Your task to perform on an android device: search for starred emails in the gmail app Image 0: 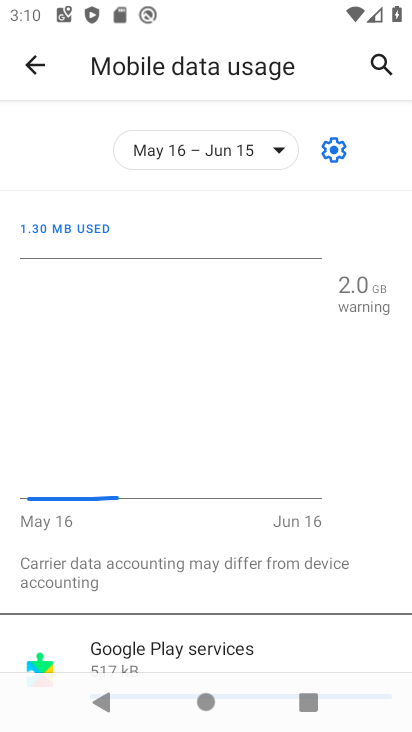
Step 0: press home button
Your task to perform on an android device: search for starred emails in the gmail app Image 1: 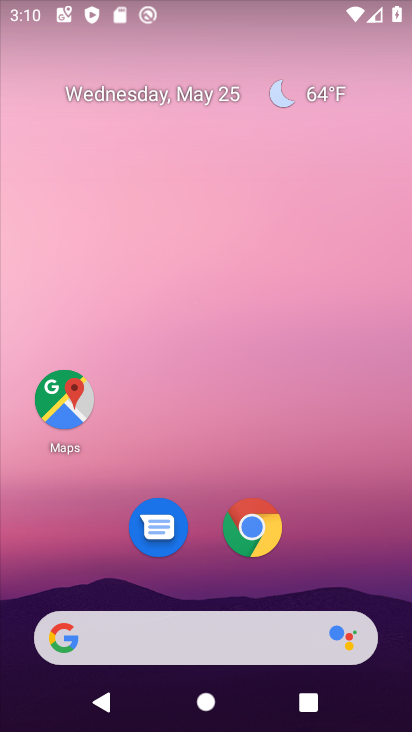
Step 1: drag from (202, 591) to (286, 72)
Your task to perform on an android device: search for starred emails in the gmail app Image 2: 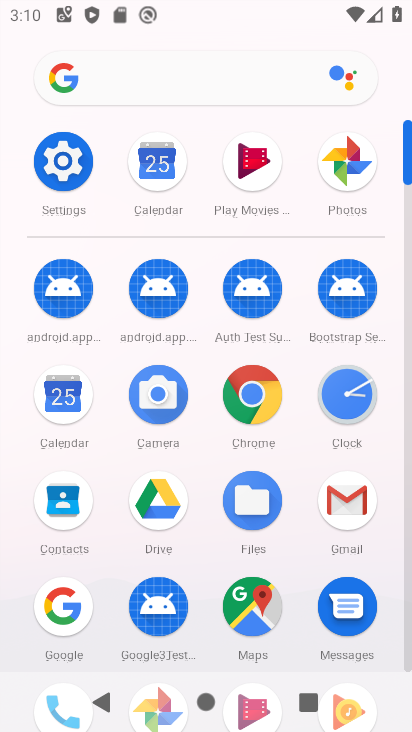
Step 2: click (350, 492)
Your task to perform on an android device: search for starred emails in the gmail app Image 3: 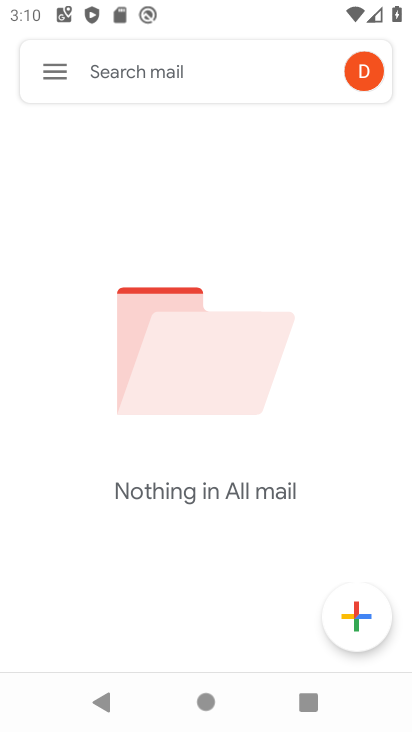
Step 3: click (45, 58)
Your task to perform on an android device: search for starred emails in the gmail app Image 4: 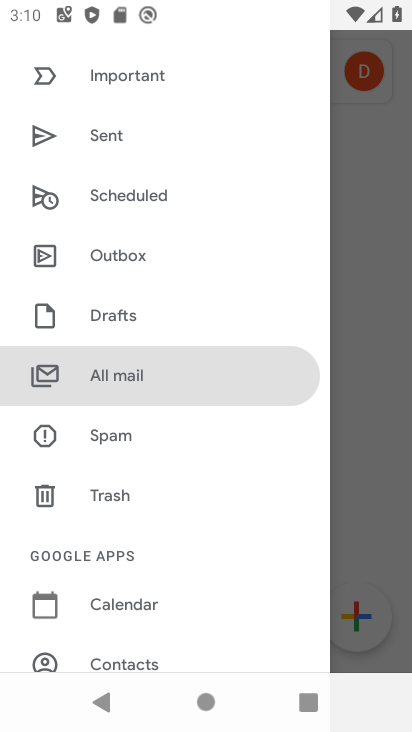
Step 4: drag from (175, 168) to (165, 539)
Your task to perform on an android device: search for starred emails in the gmail app Image 5: 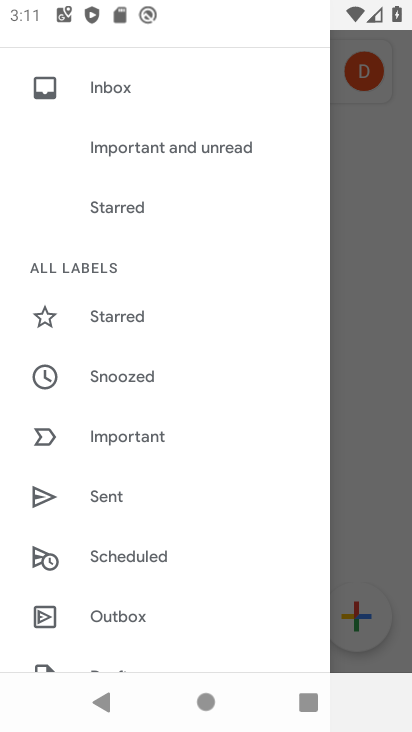
Step 5: click (131, 312)
Your task to perform on an android device: search for starred emails in the gmail app Image 6: 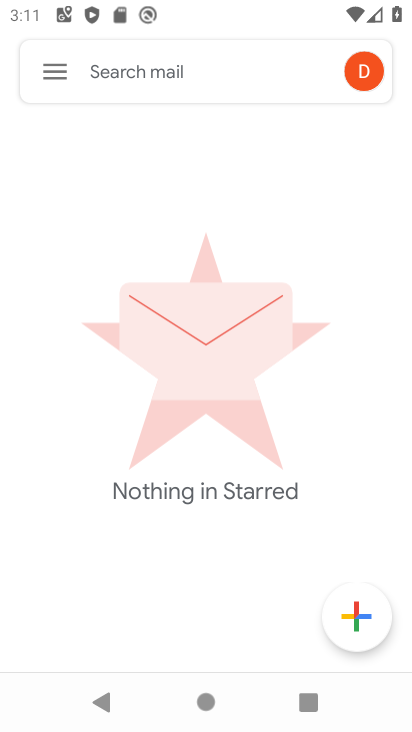
Step 6: task complete